Your task to perform on an android device: open app "eBay: The shopping marketplace" (install if not already installed) Image 0: 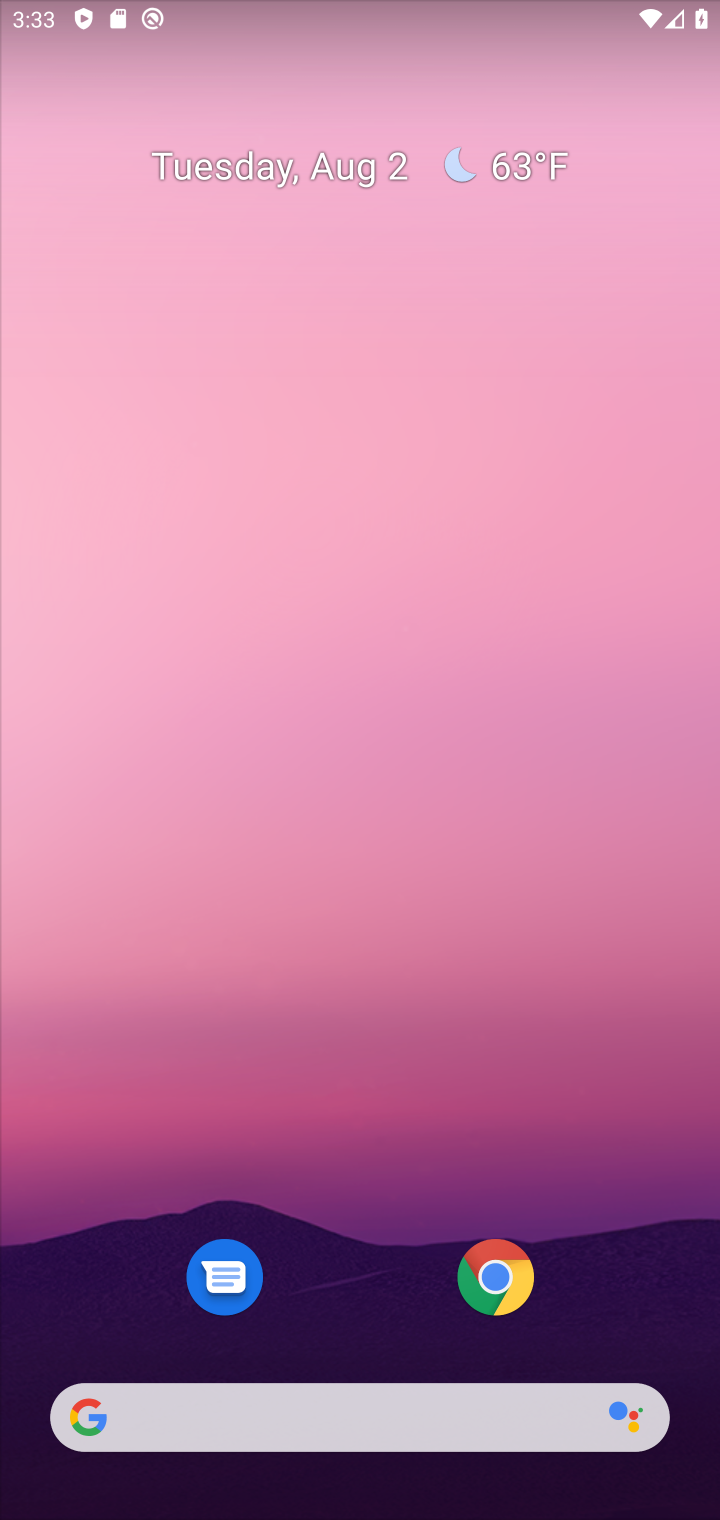
Step 0: press home button
Your task to perform on an android device: open app "eBay: The shopping marketplace" (install if not already installed) Image 1: 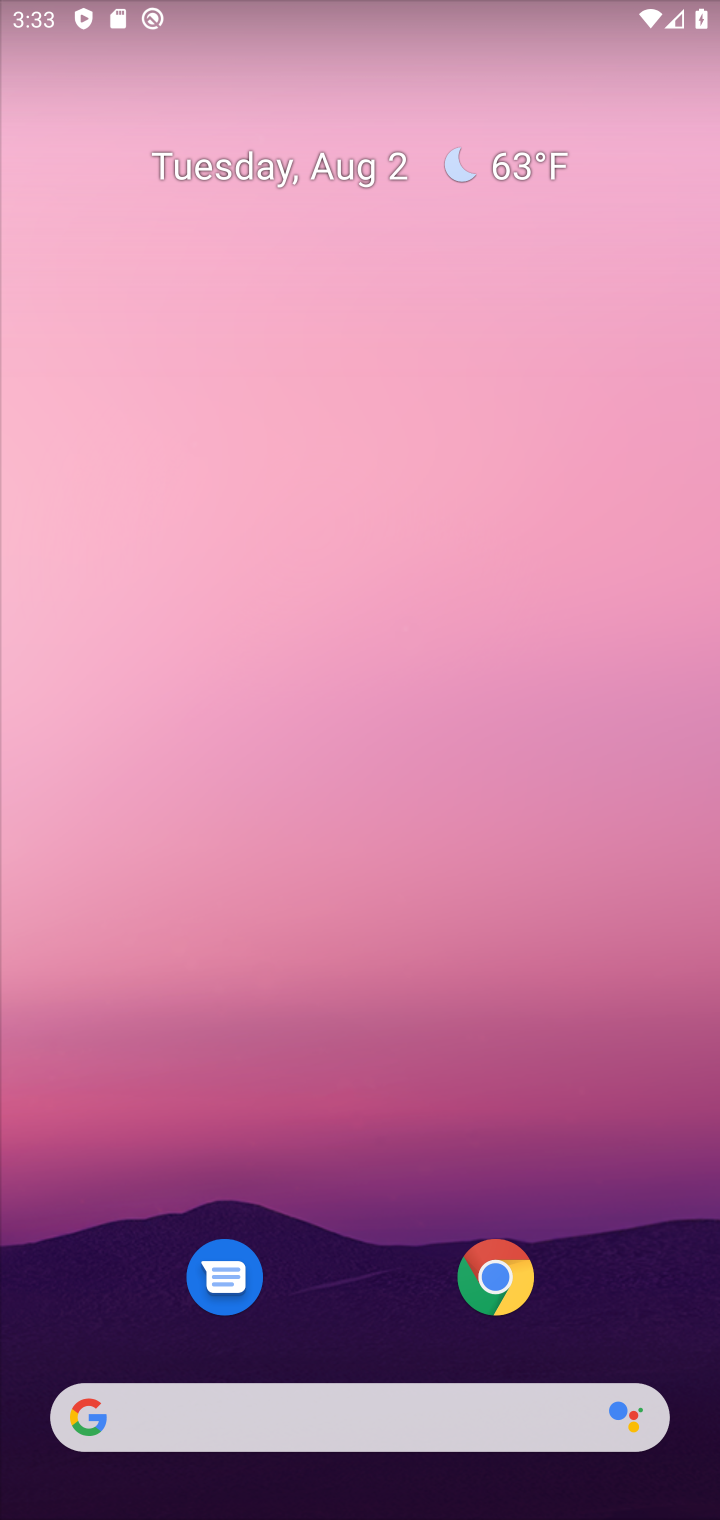
Step 1: drag from (402, 538) to (417, 337)
Your task to perform on an android device: open app "eBay: The shopping marketplace" (install if not already installed) Image 2: 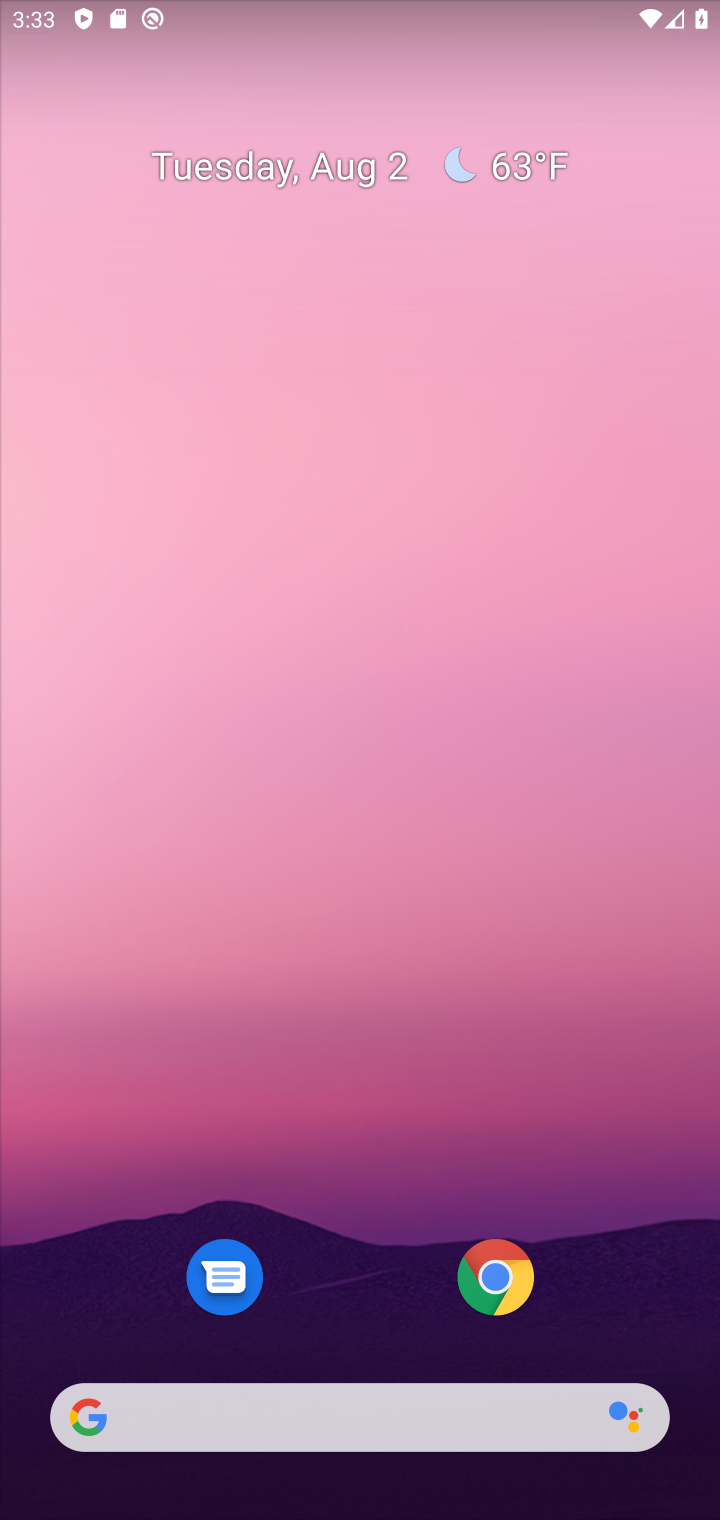
Step 2: drag from (647, 521) to (692, 51)
Your task to perform on an android device: open app "eBay: The shopping marketplace" (install if not already installed) Image 3: 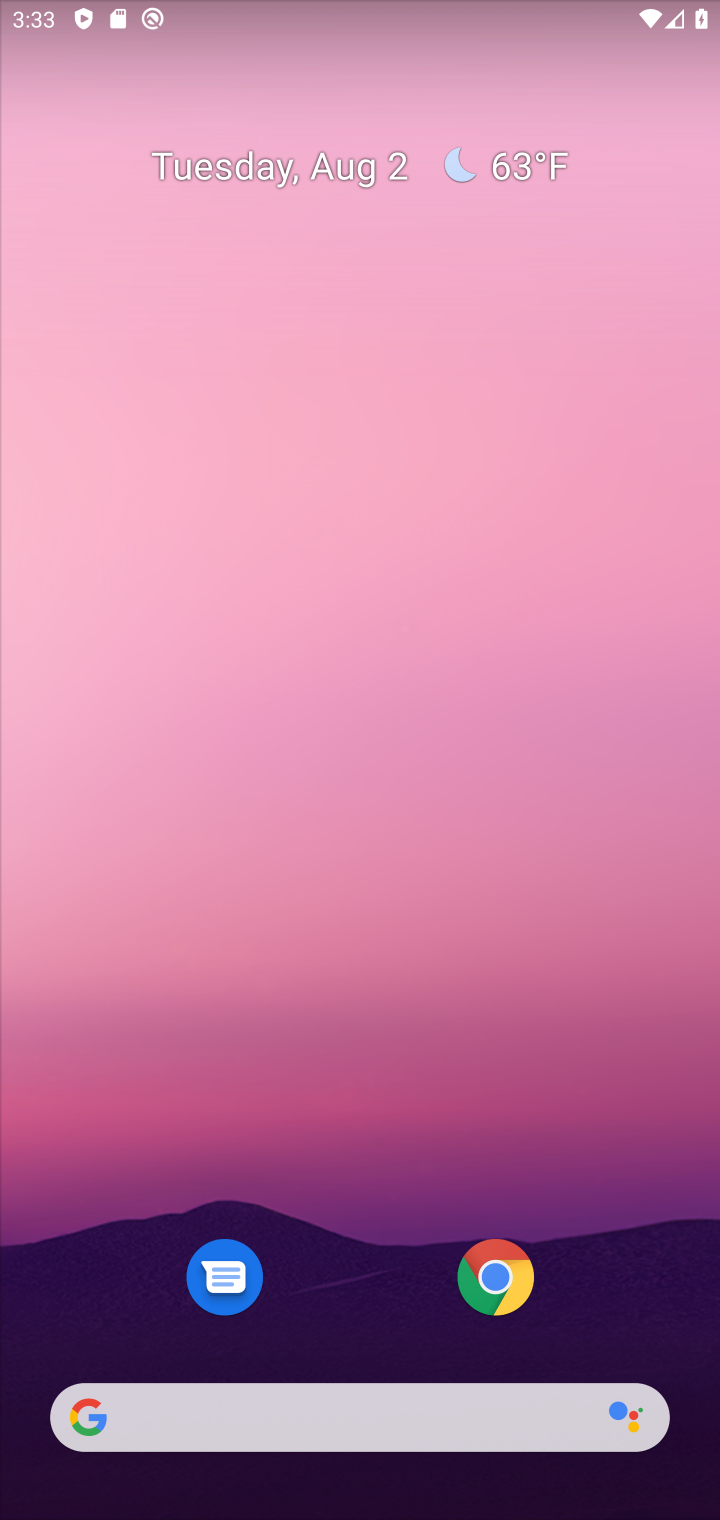
Step 3: drag from (580, 623) to (581, 60)
Your task to perform on an android device: open app "eBay: The shopping marketplace" (install if not already installed) Image 4: 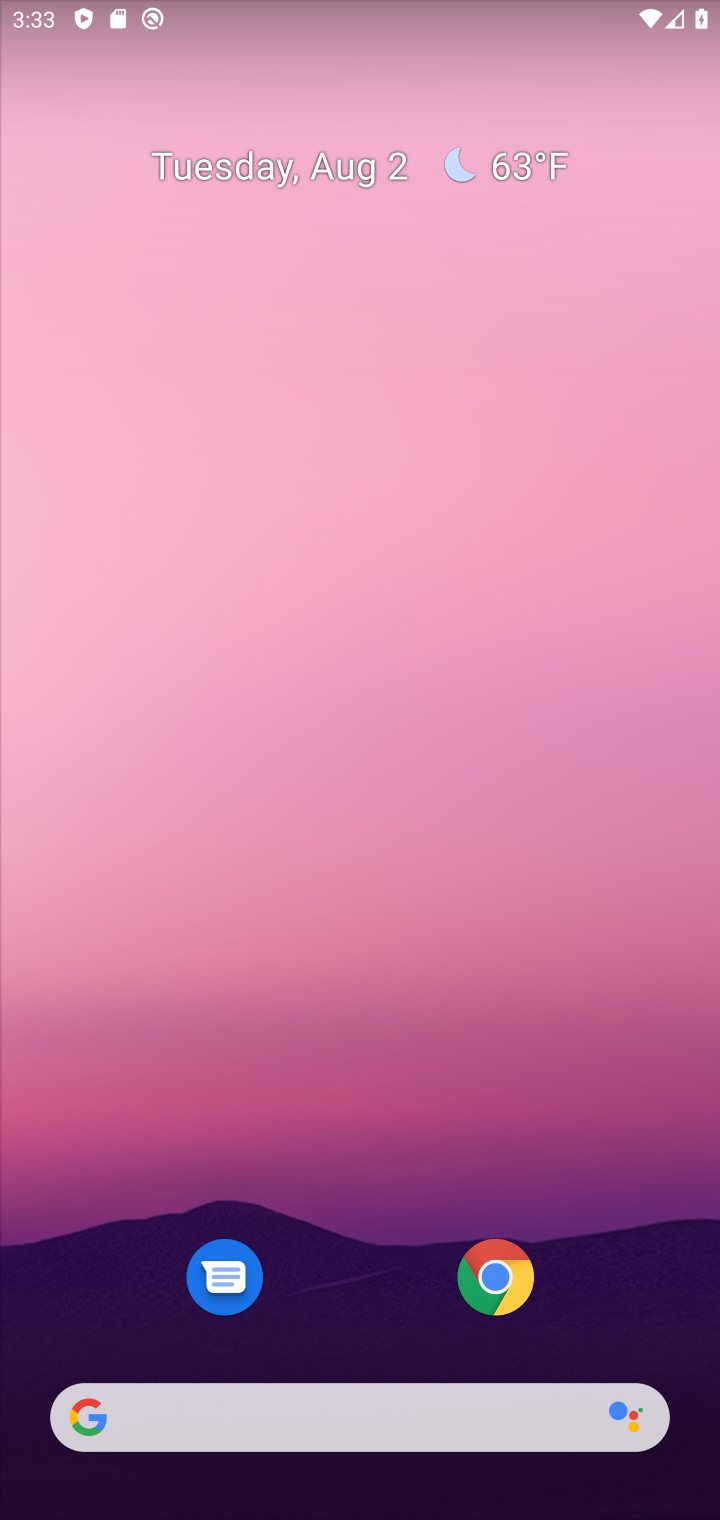
Step 4: drag from (614, 1219) to (548, 249)
Your task to perform on an android device: open app "eBay: The shopping marketplace" (install if not already installed) Image 5: 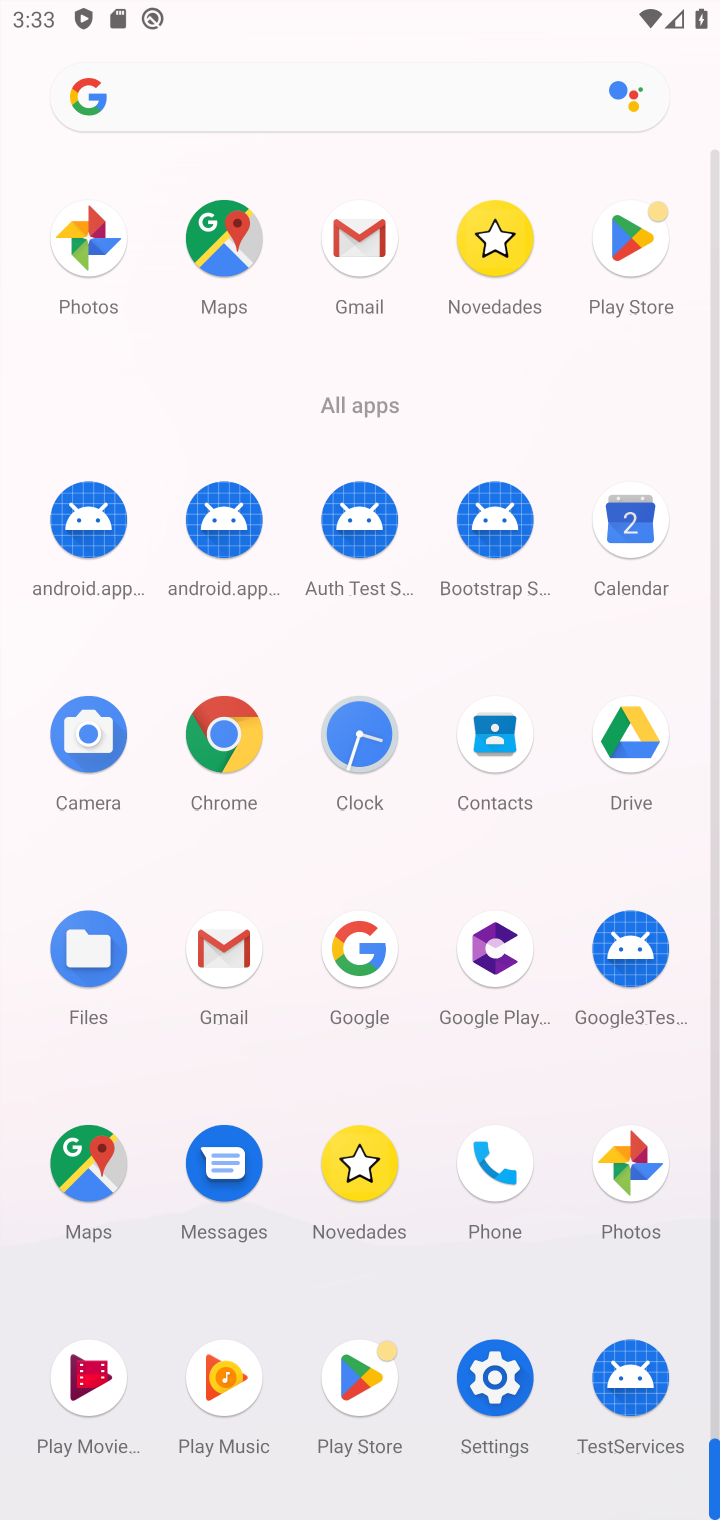
Step 5: click (368, 1371)
Your task to perform on an android device: open app "eBay: The shopping marketplace" (install if not already installed) Image 6: 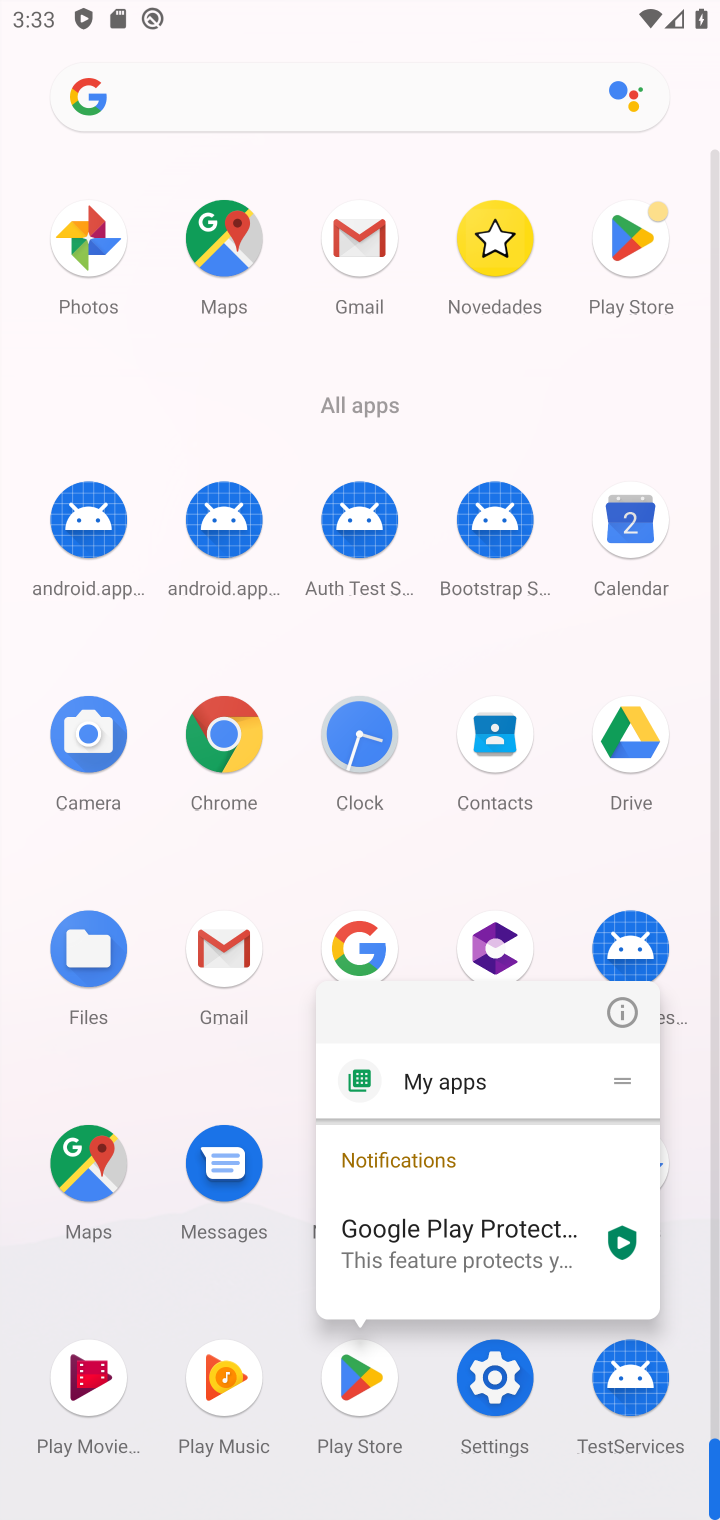
Step 6: click (368, 1371)
Your task to perform on an android device: open app "eBay: The shopping marketplace" (install if not already installed) Image 7: 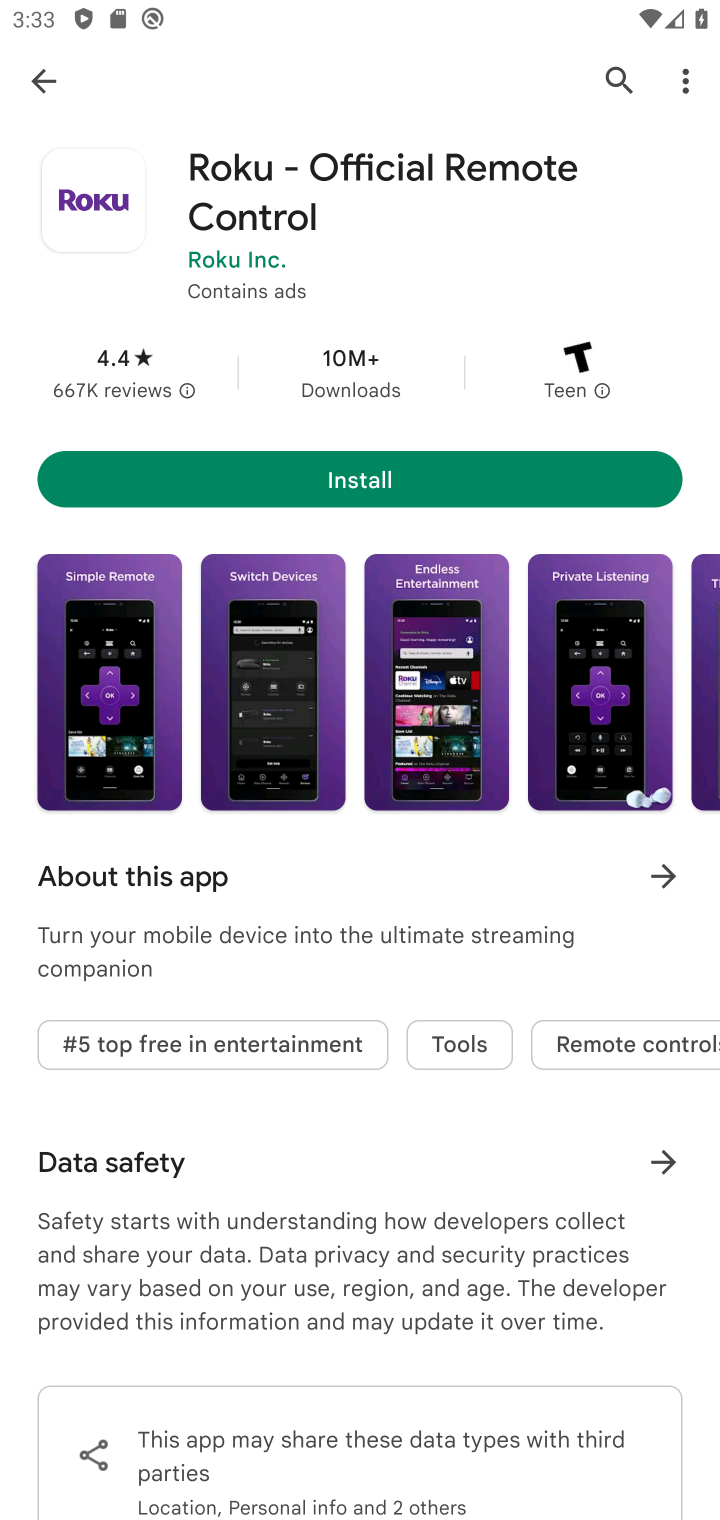
Step 7: press back button
Your task to perform on an android device: open app "eBay: The shopping marketplace" (install if not already installed) Image 8: 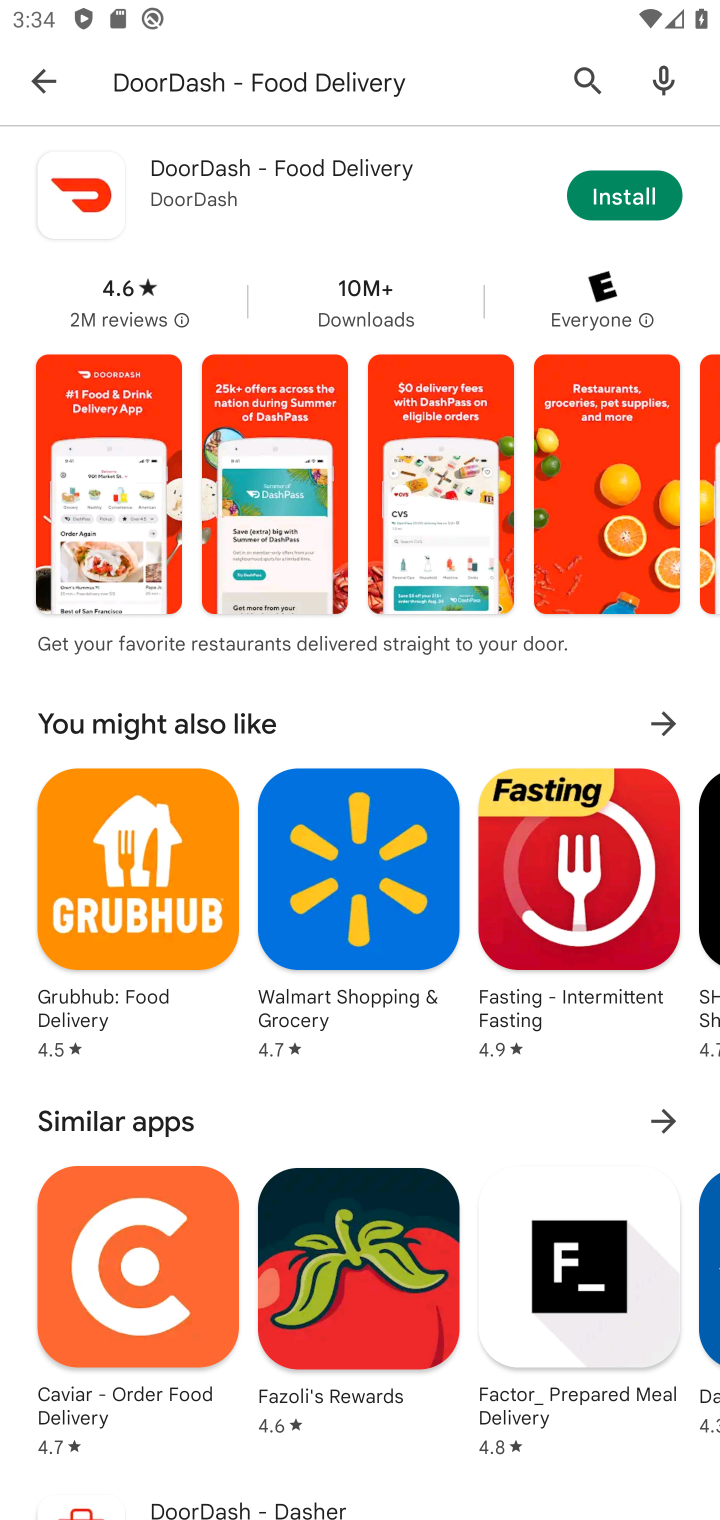
Step 8: click (408, 63)
Your task to perform on an android device: open app "eBay: The shopping marketplace" (install if not already installed) Image 9: 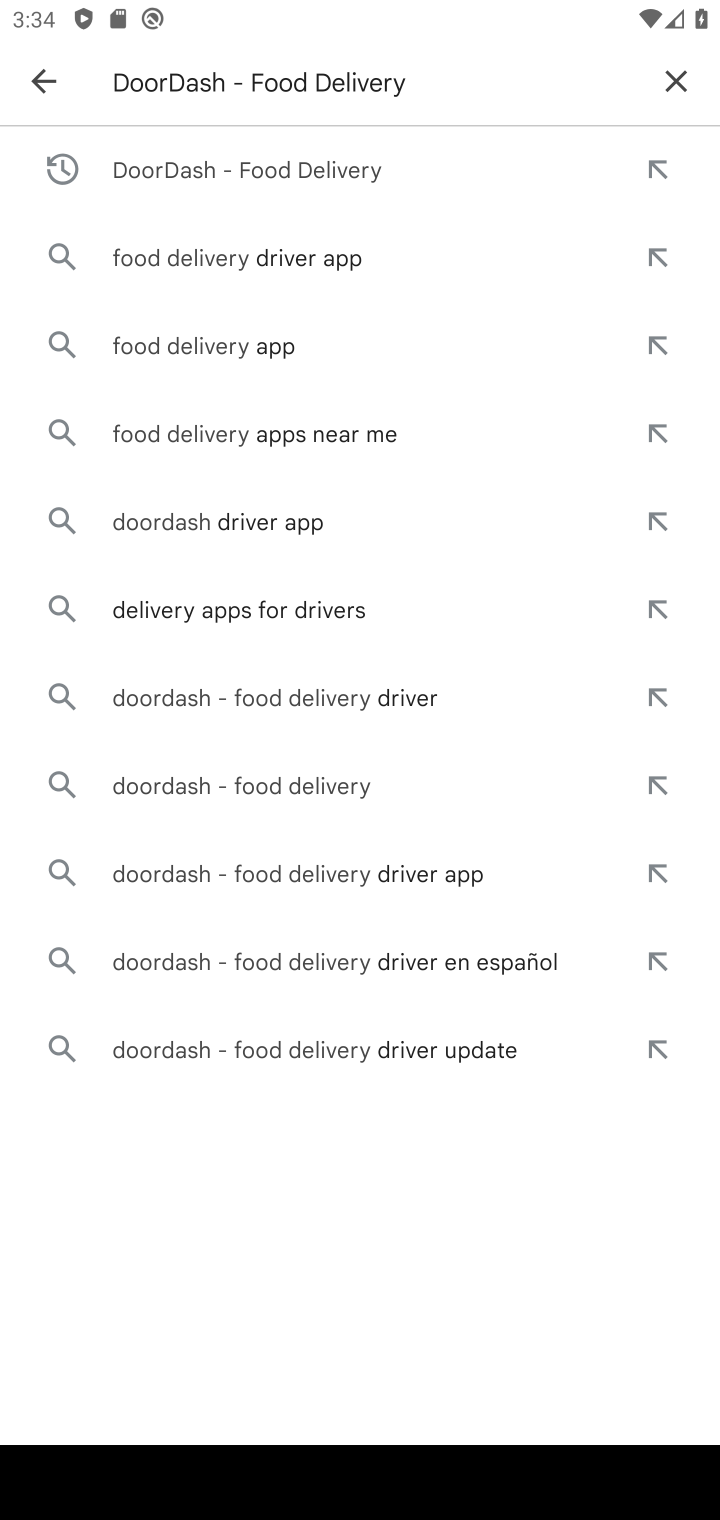
Step 9: click (669, 77)
Your task to perform on an android device: open app "eBay: The shopping marketplace" (install if not already installed) Image 10: 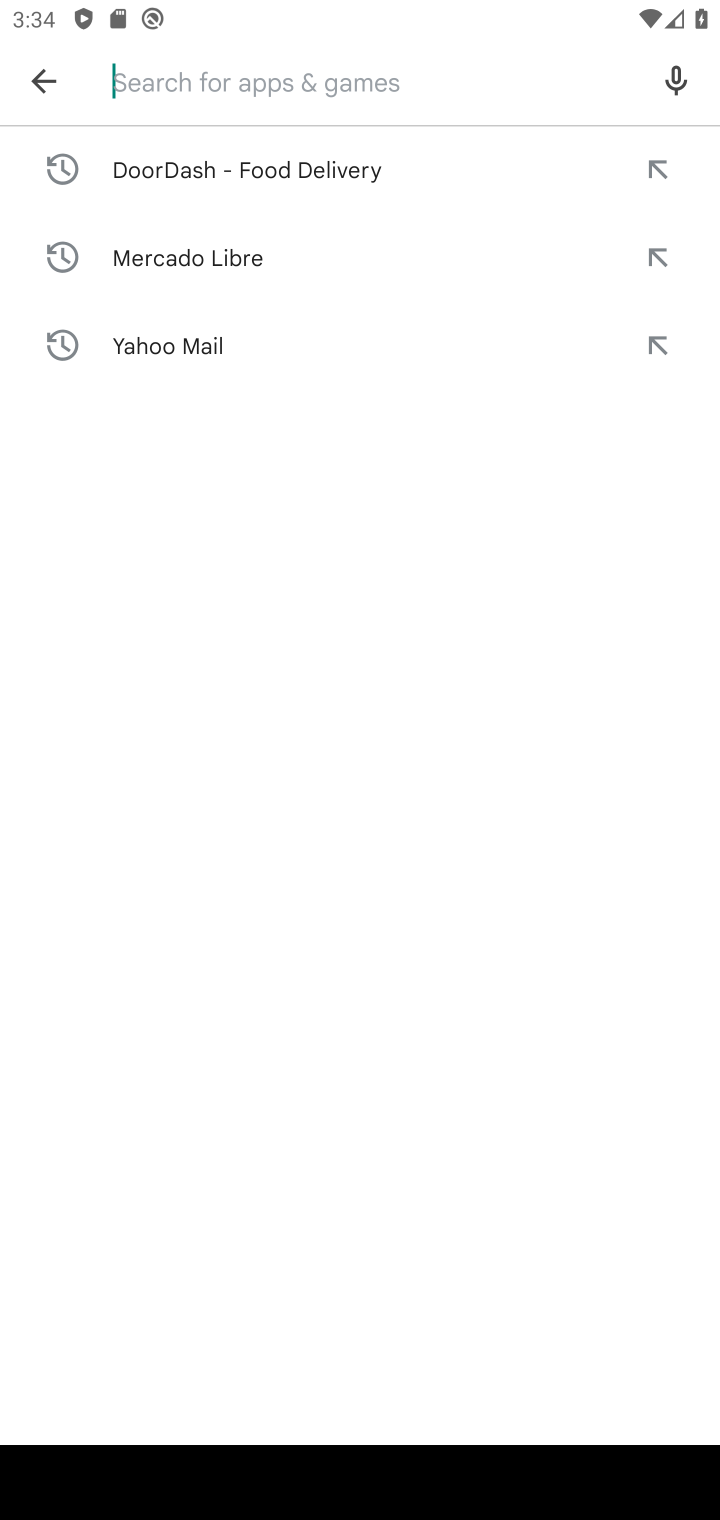
Step 10: type "eBay:The shopping marketplace"
Your task to perform on an android device: open app "eBay: The shopping marketplace" (install if not already installed) Image 11: 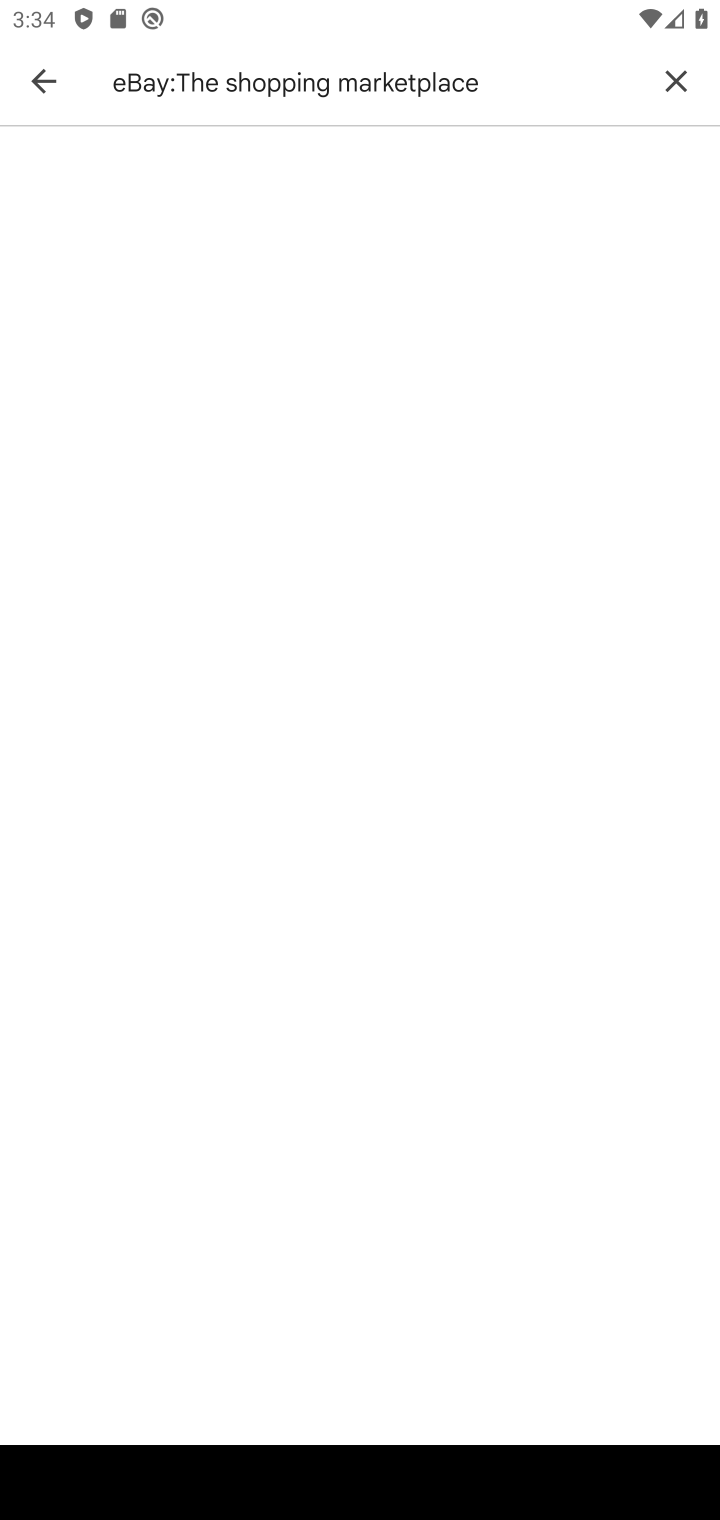
Step 11: press enter
Your task to perform on an android device: open app "eBay: The shopping marketplace" (install if not already installed) Image 12: 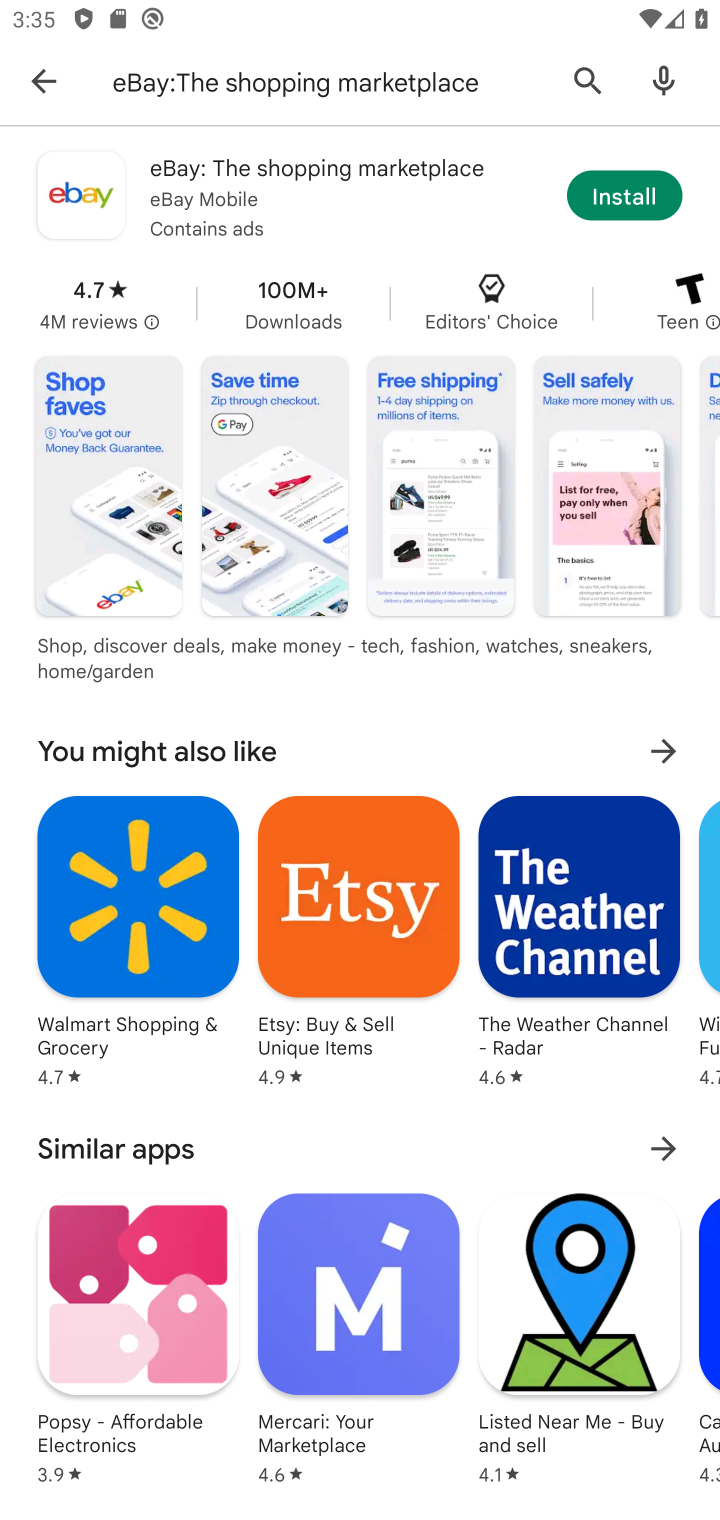
Step 12: click (644, 197)
Your task to perform on an android device: open app "eBay: The shopping marketplace" (install if not already installed) Image 13: 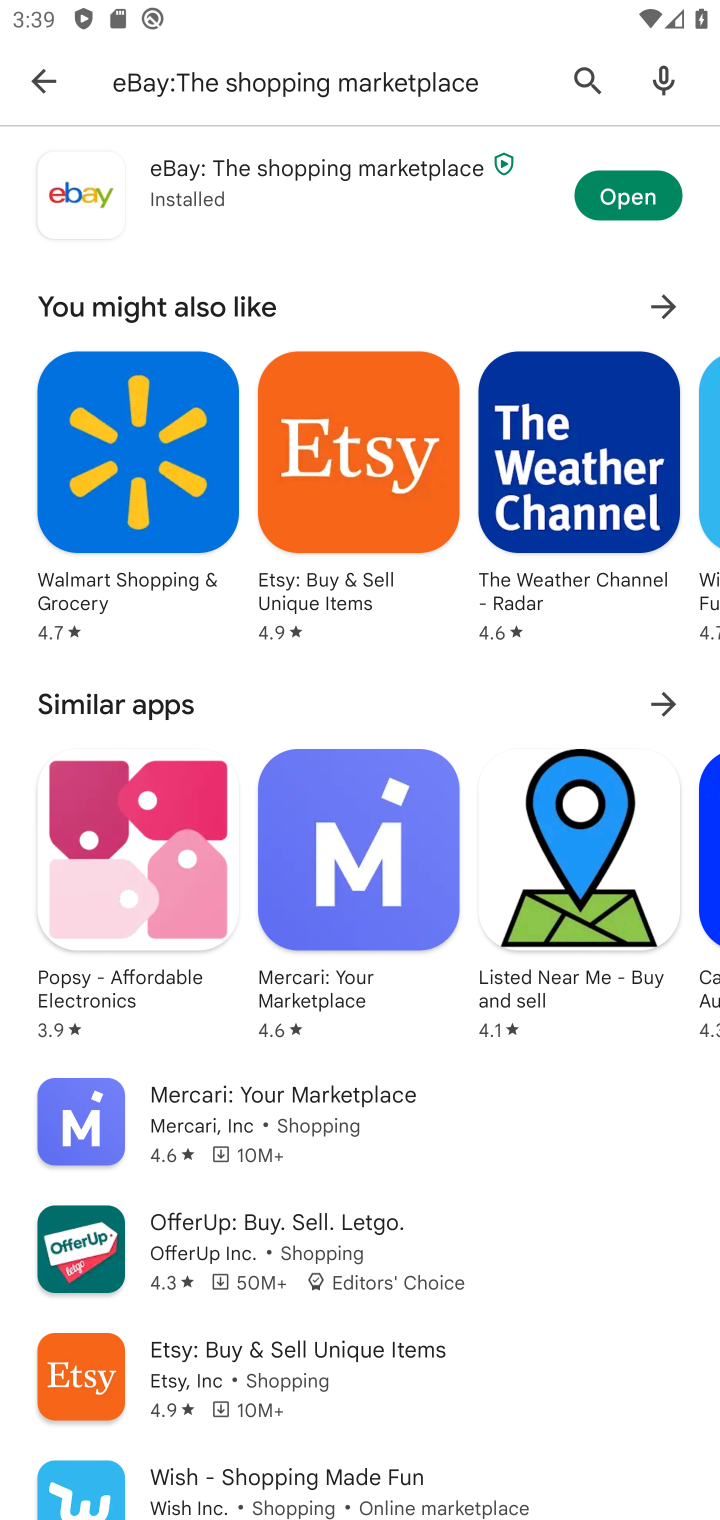
Step 13: click (655, 182)
Your task to perform on an android device: open app "eBay: The shopping marketplace" (install if not already installed) Image 14: 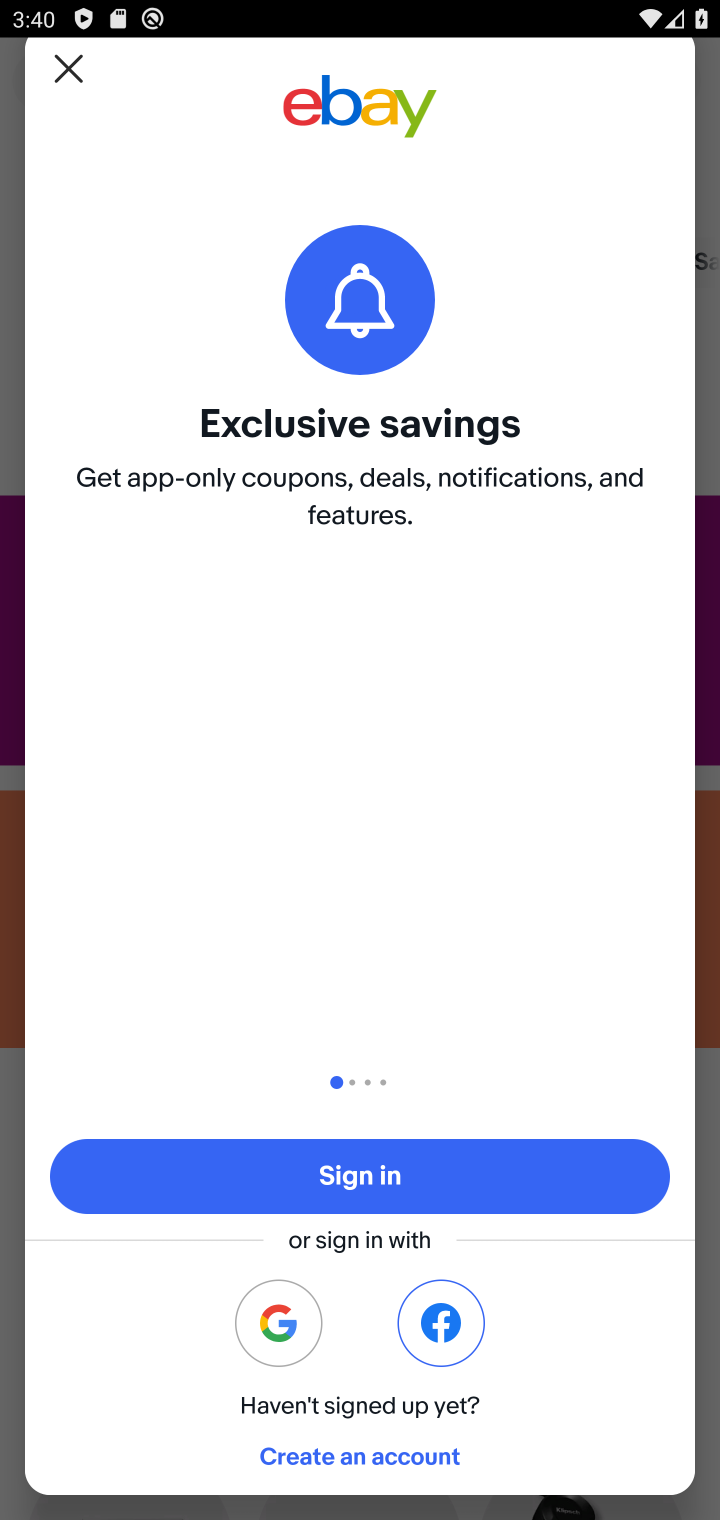
Step 14: task complete